Your task to perform on an android device: turn on javascript in the chrome app Image 0: 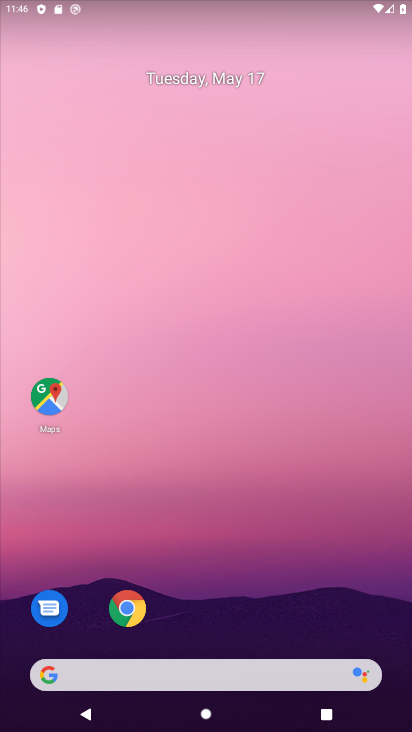
Step 0: click (126, 606)
Your task to perform on an android device: turn on javascript in the chrome app Image 1: 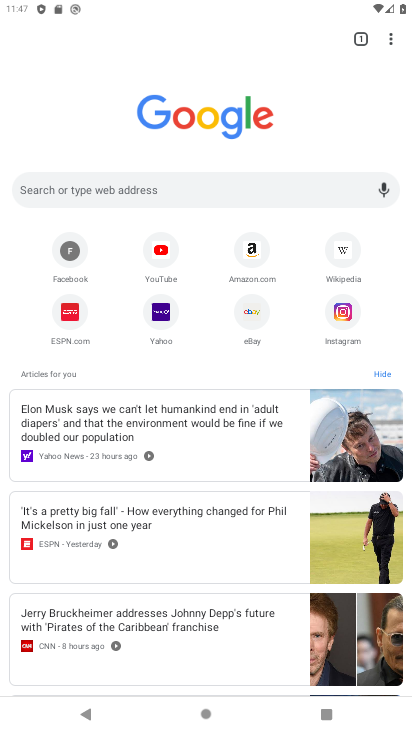
Step 1: click (401, 38)
Your task to perform on an android device: turn on javascript in the chrome app Image 2: 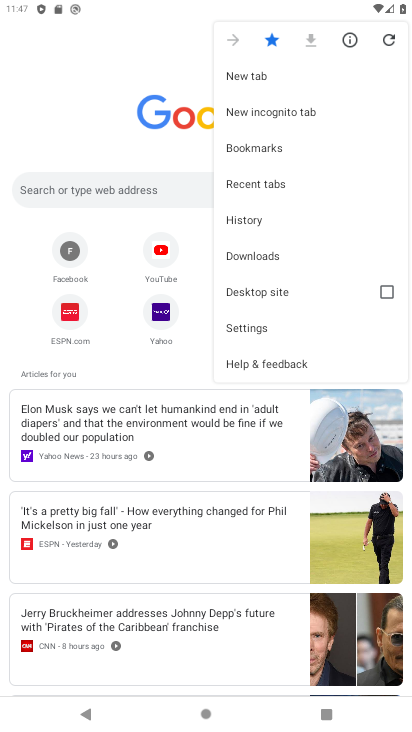
Step 2: click (282, 327)
Your task to perform on an android device: turn on javascript in the chrome app Image 3: 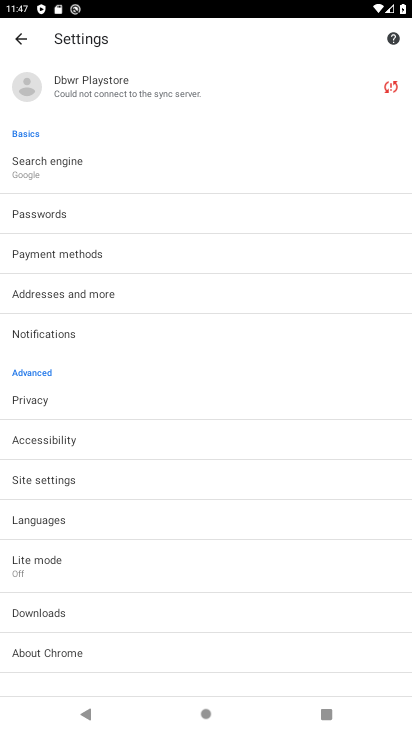
Step 3: click (70, 476)
Your task to perform on an android device: turn on javascript in the chrome app Image 4: 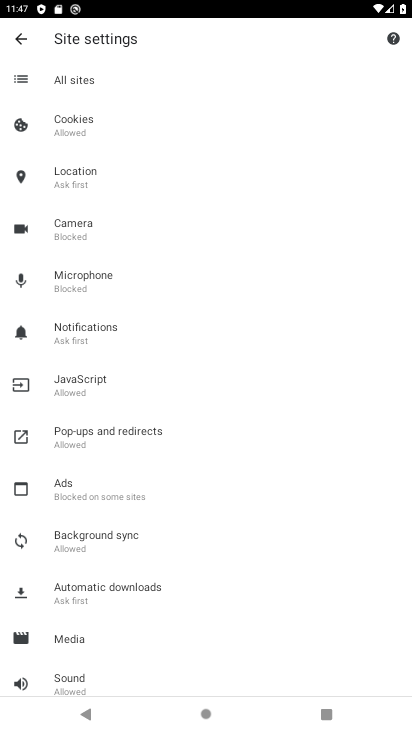
Step 4: click (105, 387)
Your task to perform on an android device: turn on javascript in the chrome app Image 5: 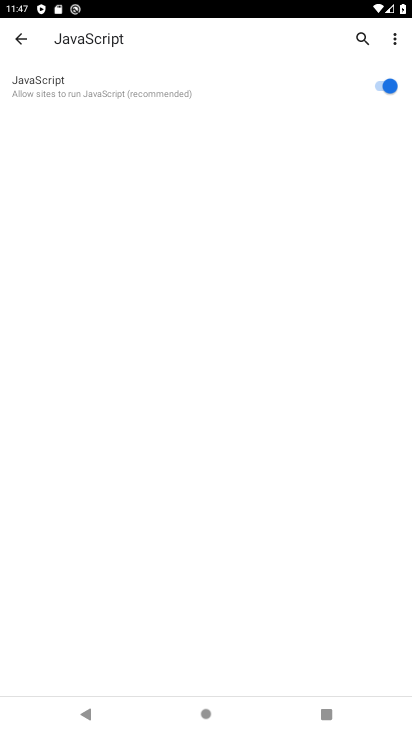
Step 5: task complete